Your task to perform on an android device: remove spam from my inbox in the gmail app Image 0: 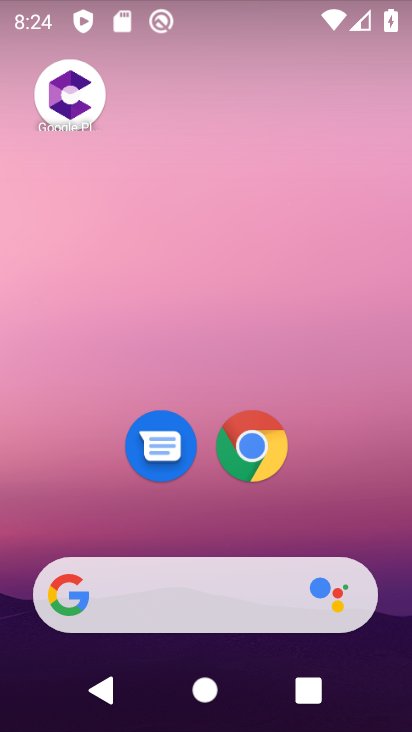
Step 0: drag from (396, 625) to (297, 64)
Your task to perform on an android device: remove spam from my inbox in the gmail app Image 1: 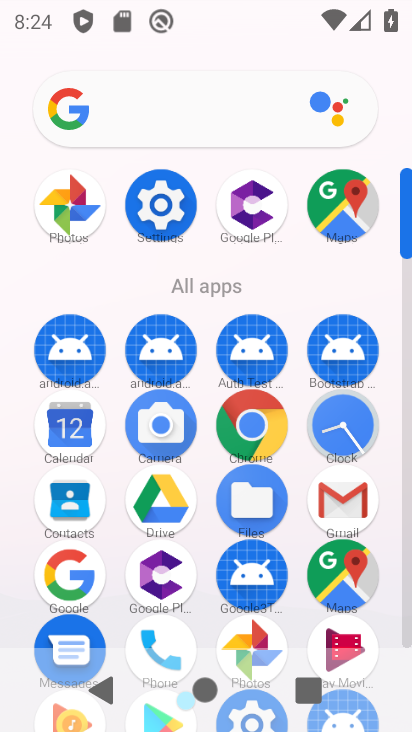
Step 1: click (407, 626)
Your task to perform on an android device: remove spam from my inbox in the gmail app Image 2: 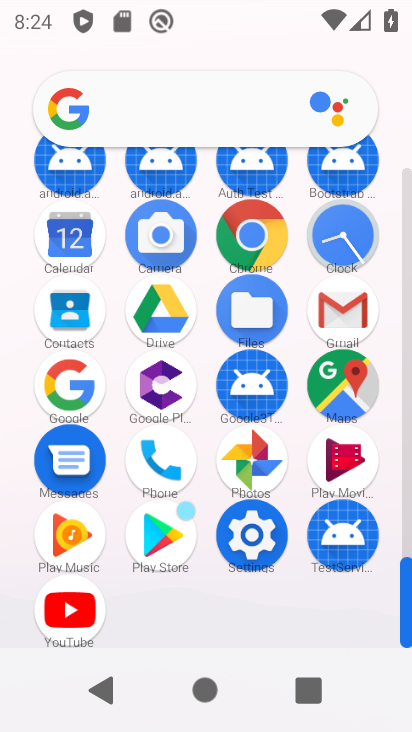
Step 2: click (342, 307)
Your task to perform on an android device: remove spam from my inbox in the gmail app Image 3: 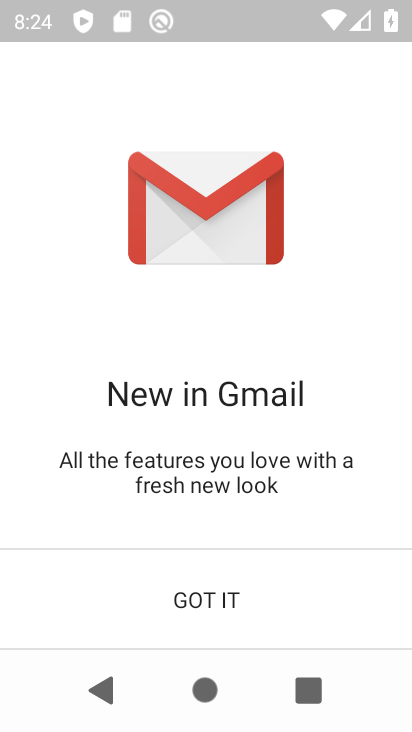
Step 3: click (200, 588)
Your task to perform on an android device: remove spam from my inbox in the gmail app Image 4: 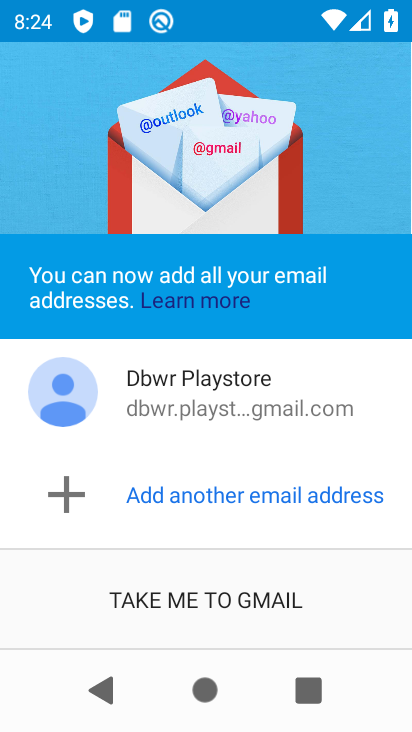
Step 4: click (200, 588)
Your task to perform on an android device: remove spam from my inbox in the gmail app Image 5: 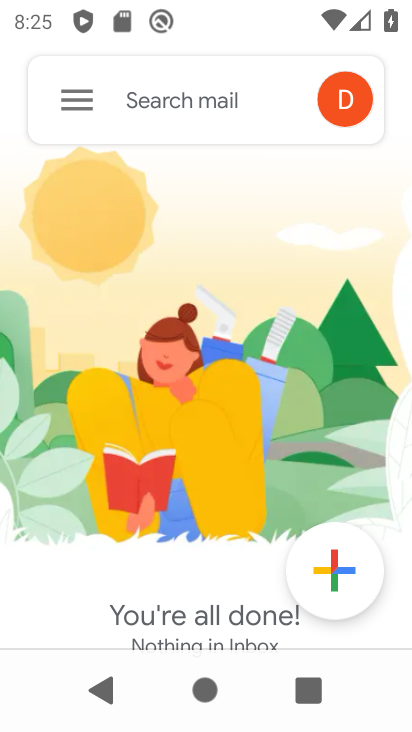
Step 5: click (75, 91)
Your task to perform on an android device: remove spam from my inbox in the gmail app Image 6: 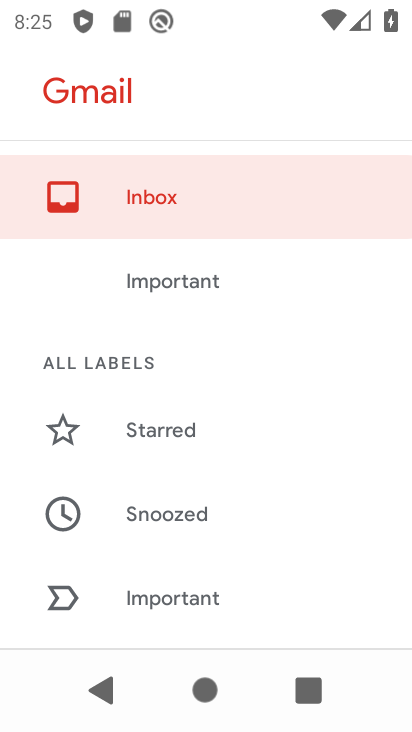
Step 6: drag from (283, 591) to (309, 83)
Your task to perform on an android device: remove spam from my inbox in the gmail app Image 7: 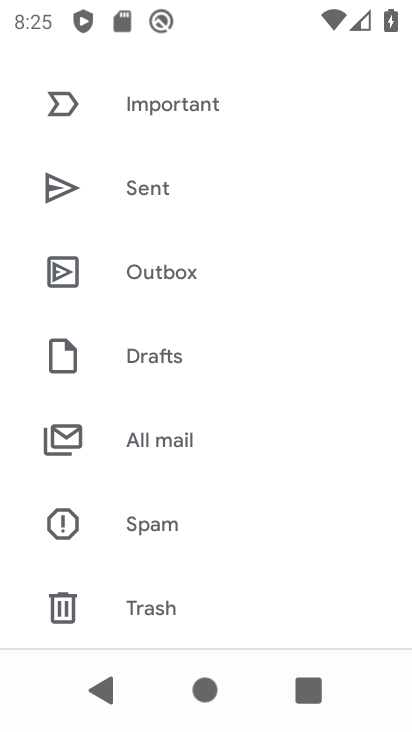
Step 7: click (151, 522)
Your task to perform on an android device: remove spam from my inbox in the gmail app Image 8: 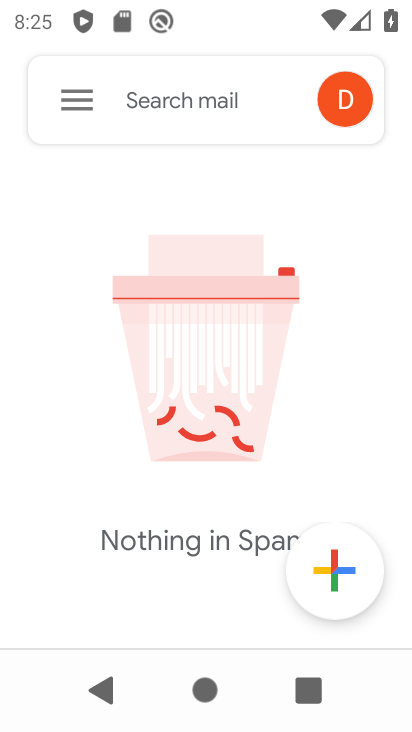
Step 8: task complete